Your task to perform on an android device: Open notification settings Image 0: 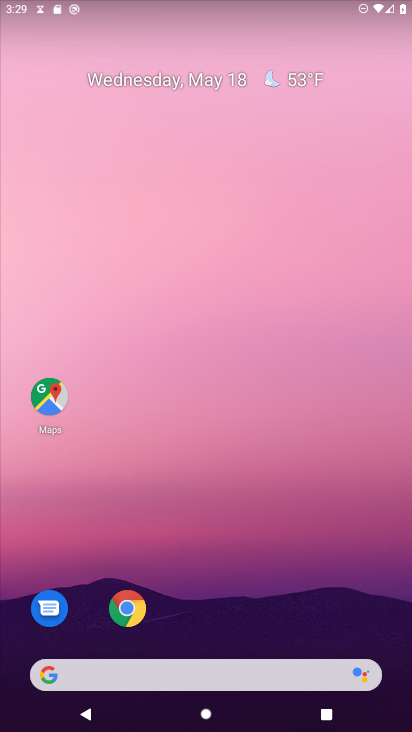
Step 0: drag from (206, 639) to (272, 268)
Your task to perform on an android device: Open notification settings Image 1: 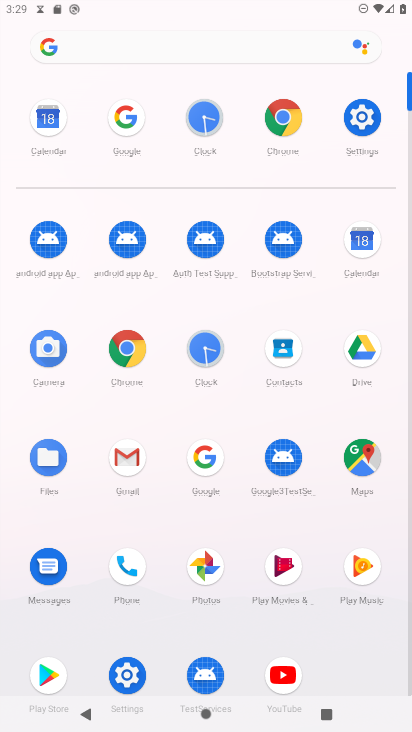
Step 1: click (364, 120)
Your task to perform on an android device: Open notification settings Image 2: 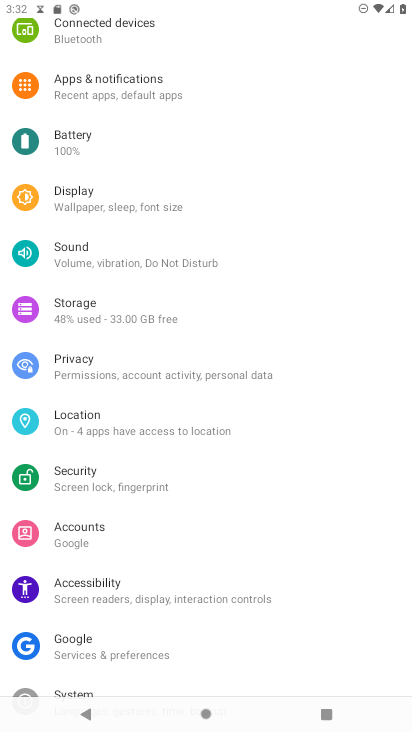
Step 2: click (118, 81)
Your task to perform on an android device: Open notification settings Image 3: 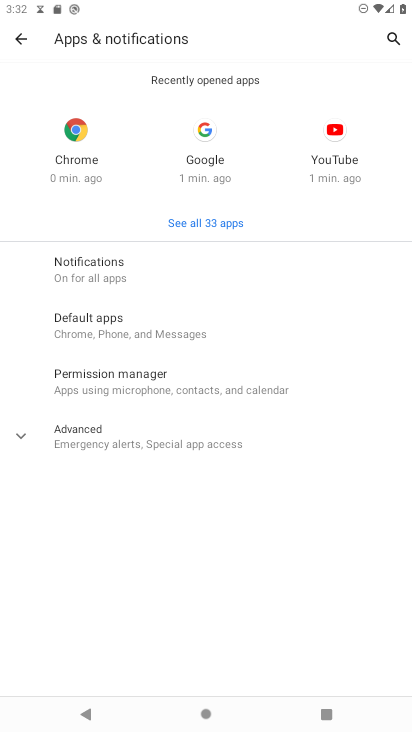
Step 3: click (118, 434)
Your task to perform on an android device: Open notification settings Image 4: 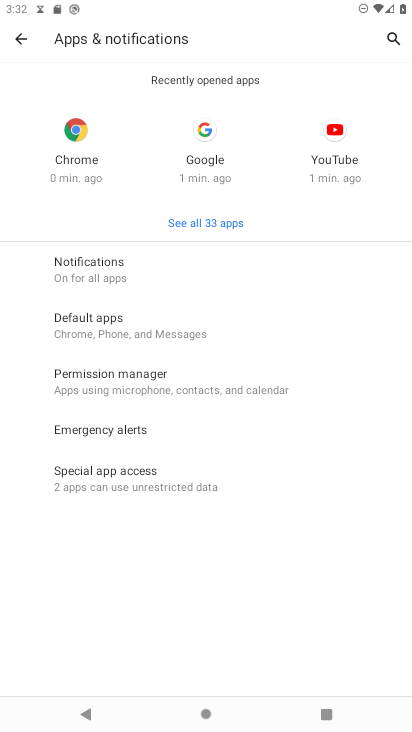
Step 4: task complete